Your task to perform on an android device: Open notification settings Image 0: 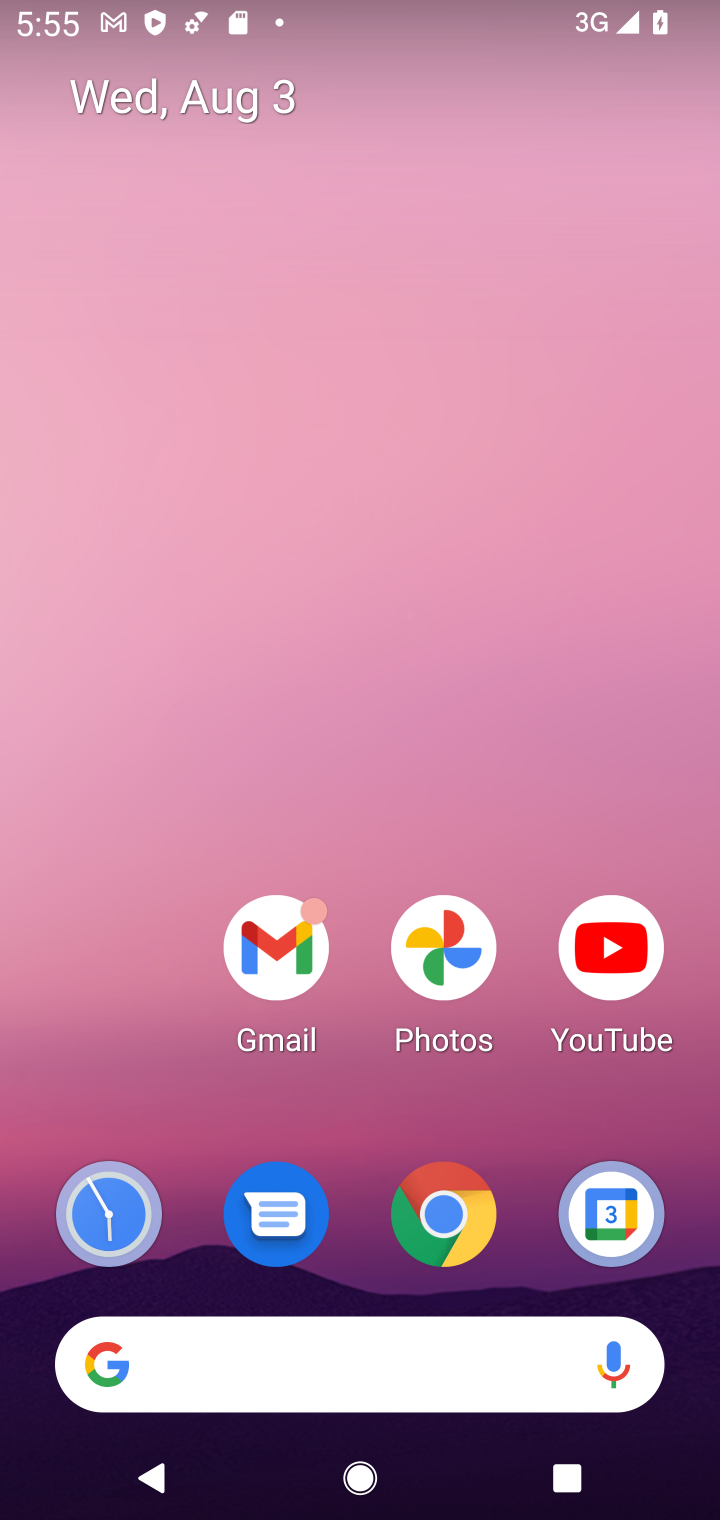
Step 0: drag from (350, 1156) to (570, 29)
Your task to perform on an android device: Open notification settings Image 1: 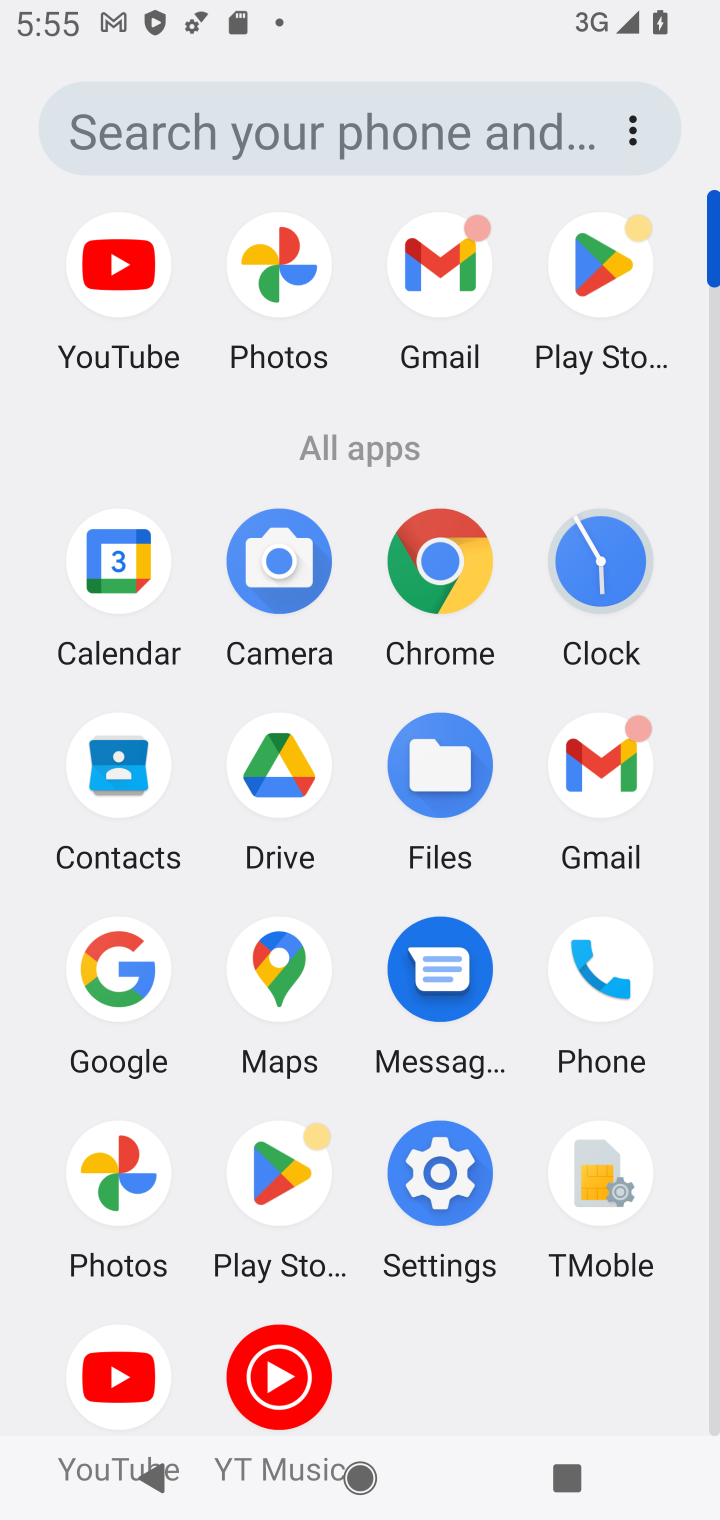
Step 1: click (430, 1206)
Your task to perform on an android device: Open notification settings Image 2: 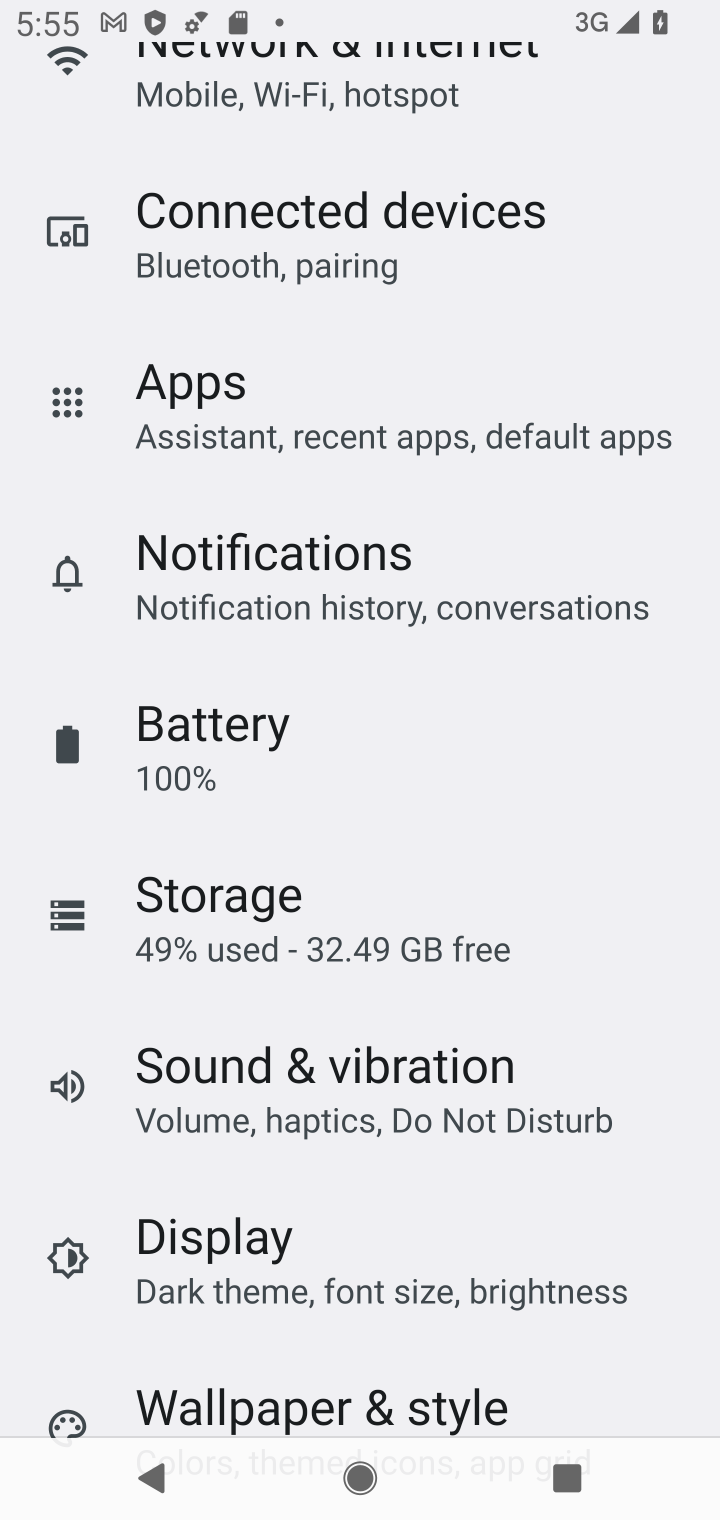
Step 2: click (496, 606)
Your task to perform on an android device: Open notification settings Image 3: 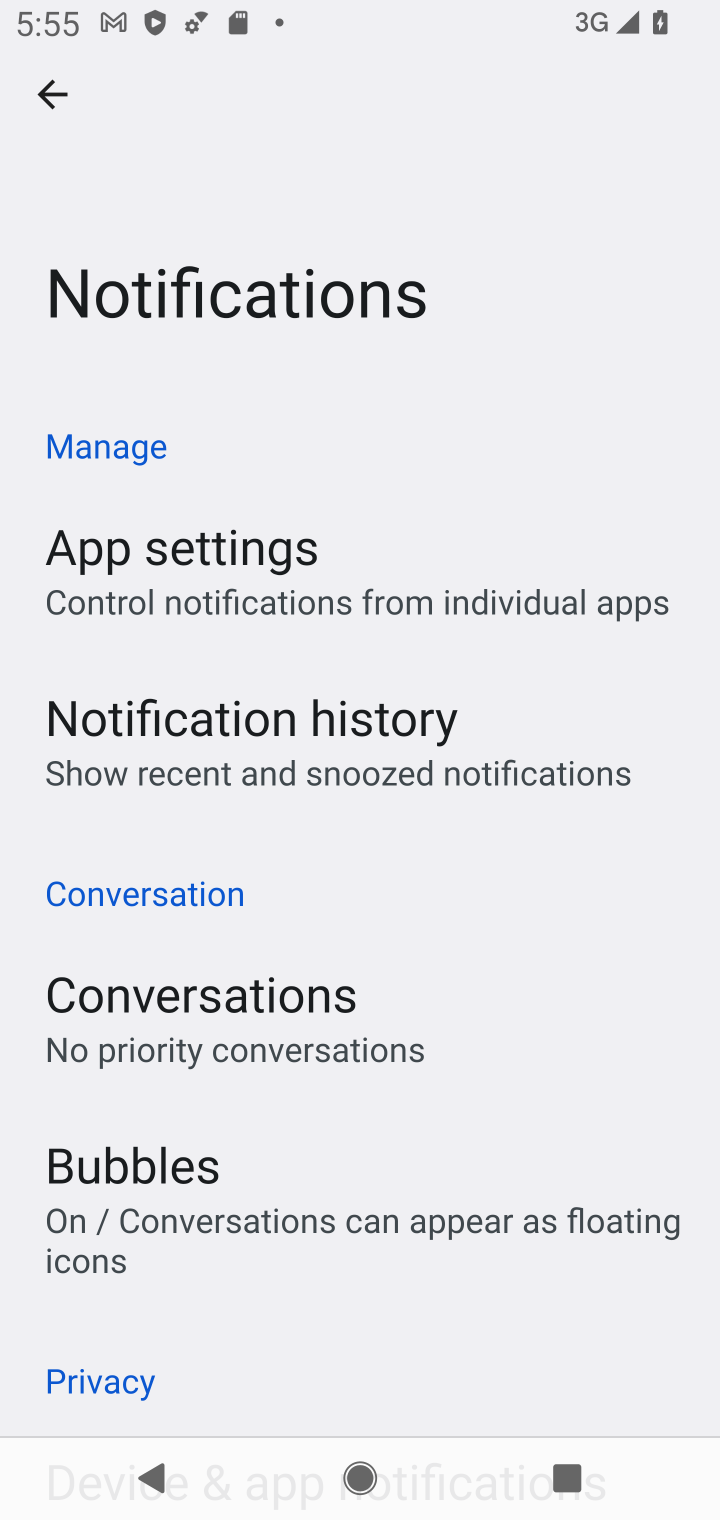
Step 3: task complete